Your task to perform on an android device: turn on sleep mode Image 0: 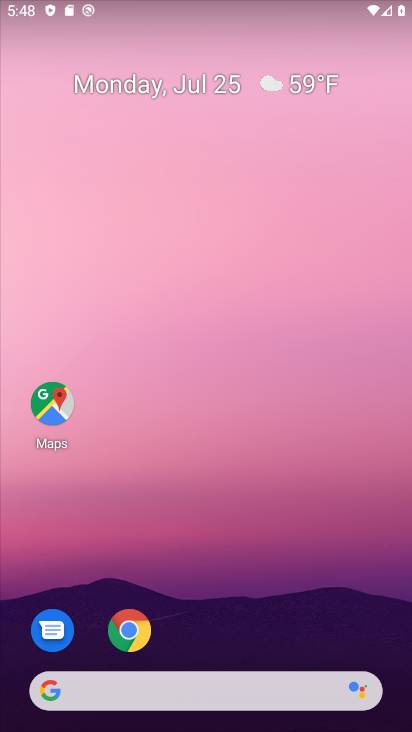
Step 0: drag from (186, 544) to (185, 290)
Your task to perform on an android device: turn on sleep mode Image 1: 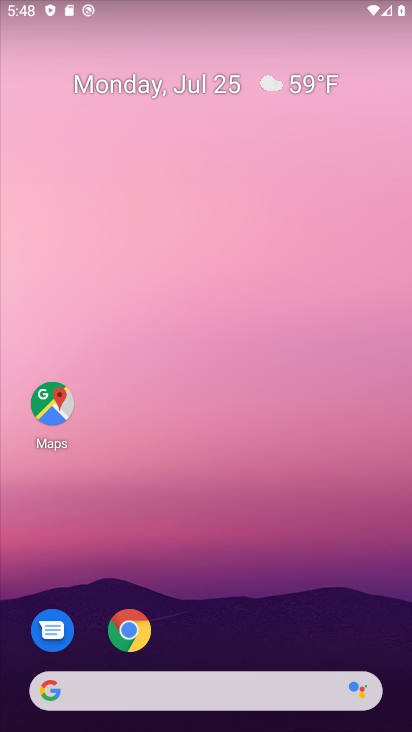
Step 1: drag from (189, 563) to (220, 76)
Your task to perform on an android device: turn on sleep mode Image 2: 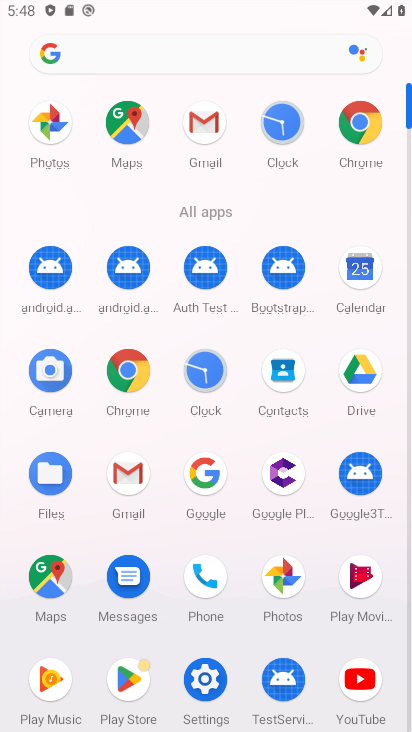
Step 2: click (205, 682)
Your task to perform on an android device: turn on sleep mode Image 3: 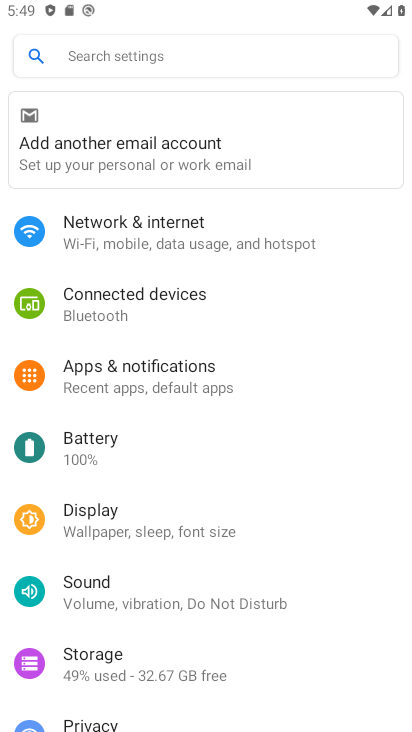
Step 3: task complete